Your task to perform on an android device: delete the emails in spam in the gmail app Image 0: 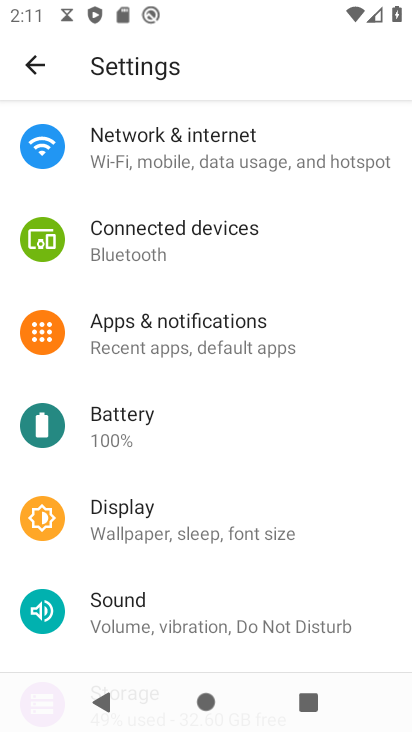
Step 0: press back button
Your task to perform on an android device: delete the emails in spam in the gmail app Image 1: 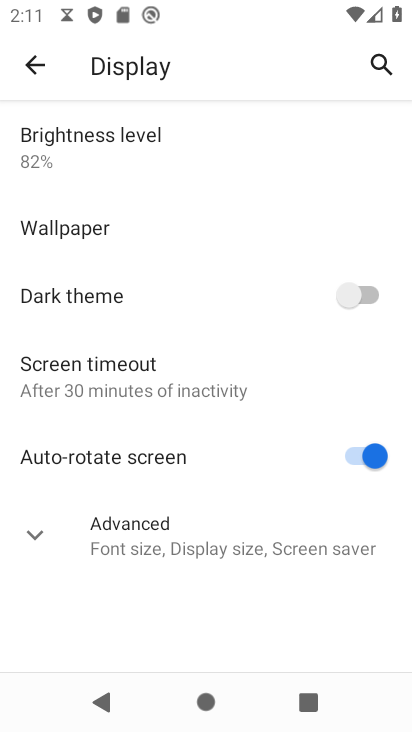
Step 1: press back button
Your task to perform on an android device: delete the emails in spam in the gmail app Image 2: 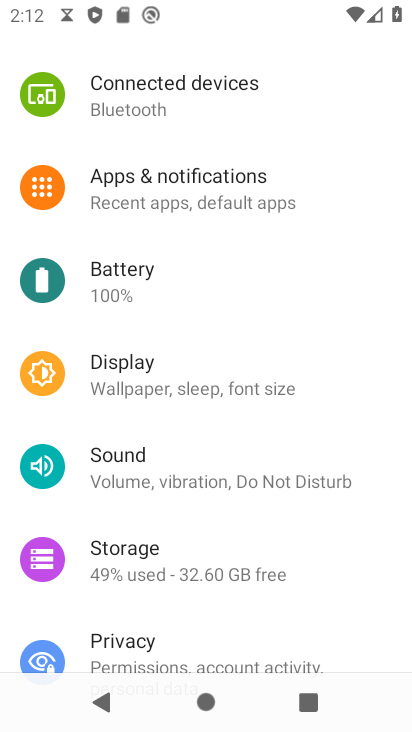
Step 2: press back button
Your task to perform on an android device: delete the emails in spam in the gmail app Image 3: 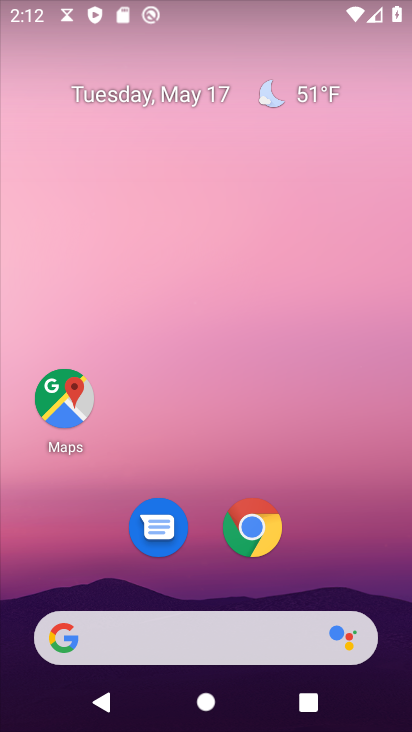
Step 3: drag from (332, 522) to (260, 133)
Your task to perform on an android device: delete the emails in spam in the gmail app Image 4: 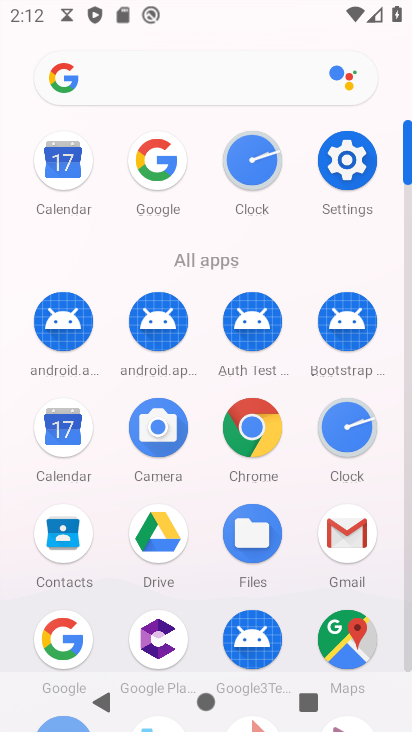
Step 4: click (347, 530)
Your task to perform on an android device: delete the emails in spam in the gmail app Image 5: 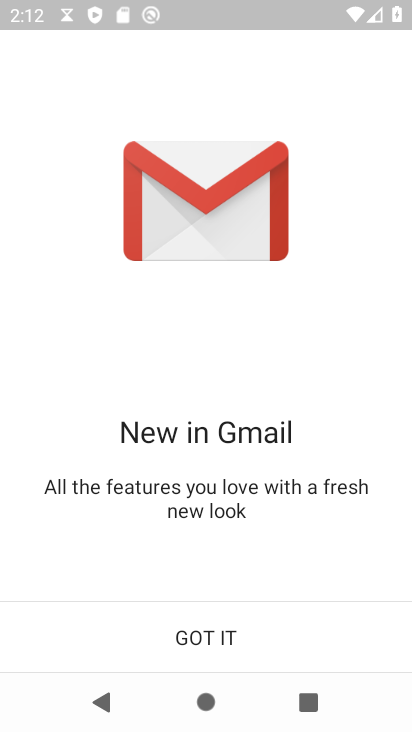
Step 5: click (200, 642)
Your task to perform on an android device: delete the emails in spam in the gmail app Image 6: 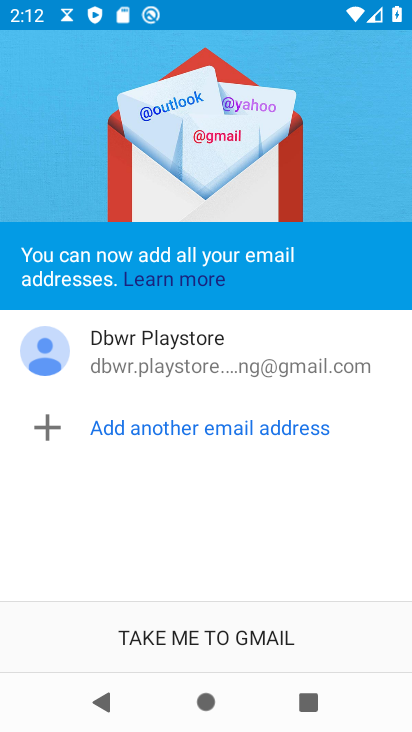
Step 6: click (168, 648)
Your task to perform on an android device: delete the emails in spam in the gmail app Image 7: 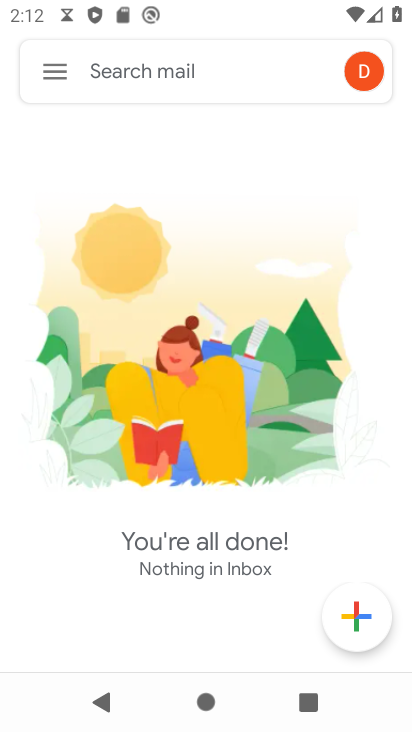
Step 7: click (49, 69)
Your task to perform on an android device: delete the emails in spam in the gmail app Image 8: 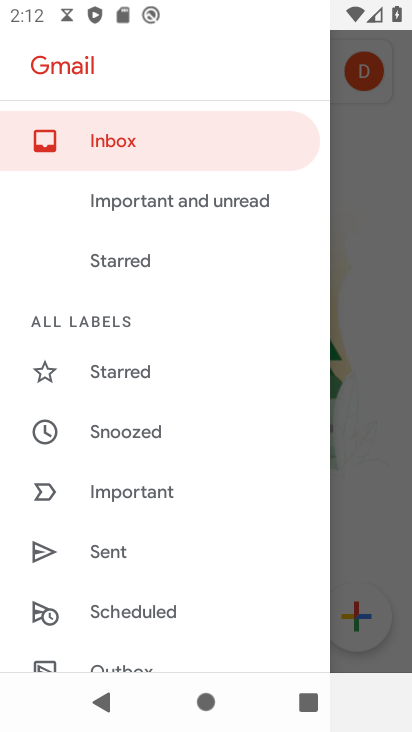
Step 8: drag from (127, 524) to (149, 440)
Your task to perform on an android device: delete the emails in spam in the gmail app Image 9: 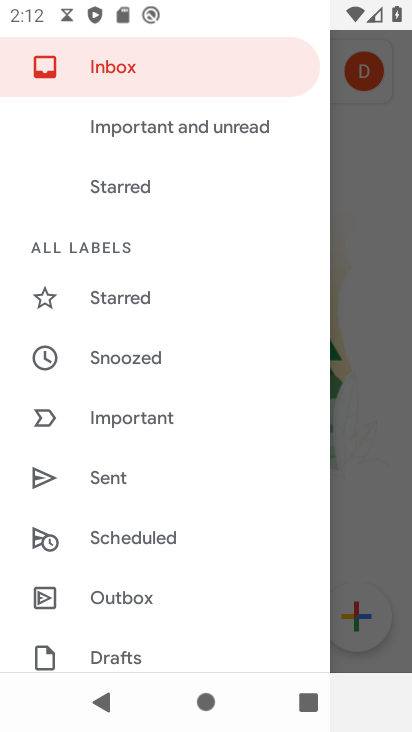
Step 9: drag from (147, 536) to (188, 428)
Your task to perform on an android device: delete the emails in spam in the gmail app Image 10: 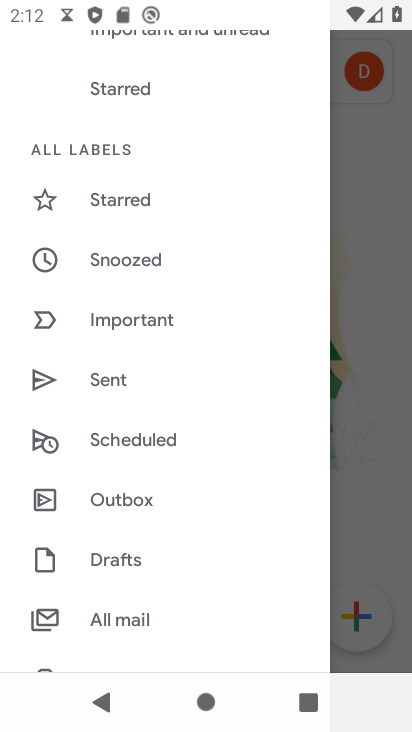
Step 10: drag from (136, 534) to (156, 465)
Your task to perform on an android device: delete the emails in spam in the gmail app Image 11: 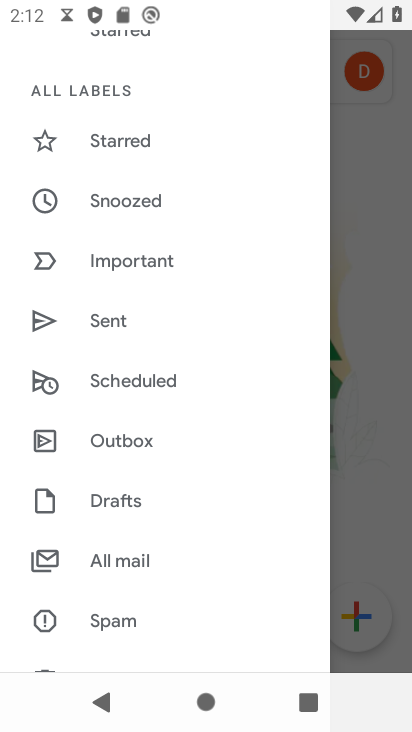
Step 11: drag from (133, 546) to (150, 468)
Your task to perform on an android device: delete the emails in spam in the gmail app Image 12: 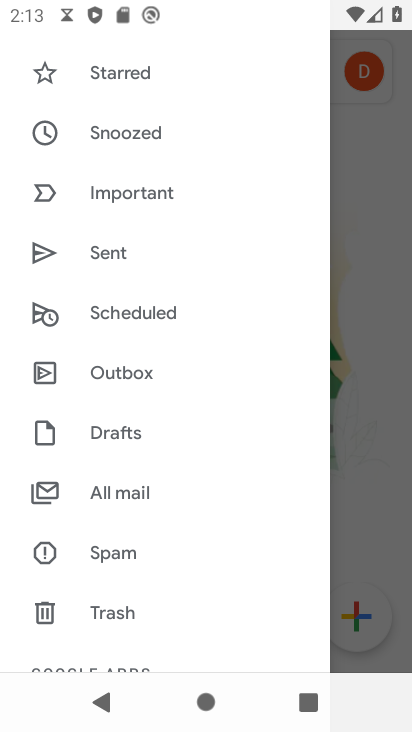
Step 12: click (127, 550)
Your task to perform on an android device: delete the emails in spam in the gmail app Image 13: 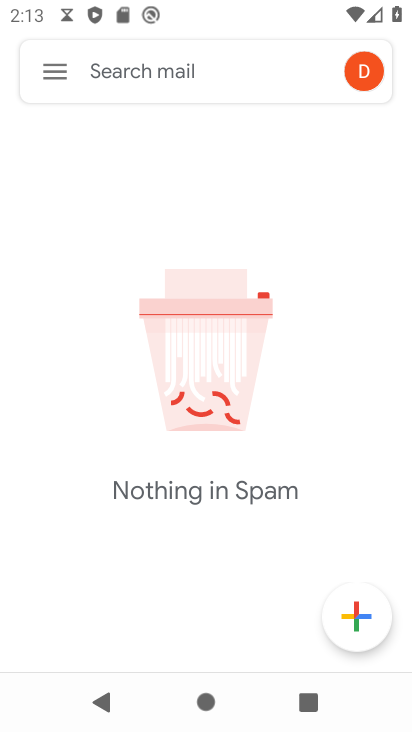
Step 13: task complete